Your task to perform on an android device: check google app version Image 0: 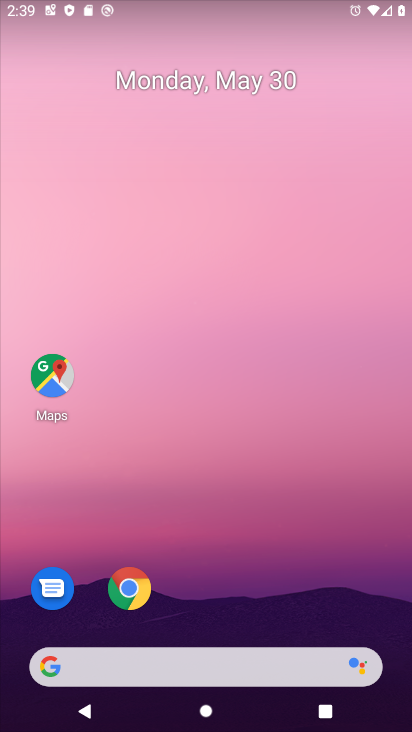
Step 0: drag from (258, 600) to (272, 132)
Your task to perform on an android device: check google app version Image 1: 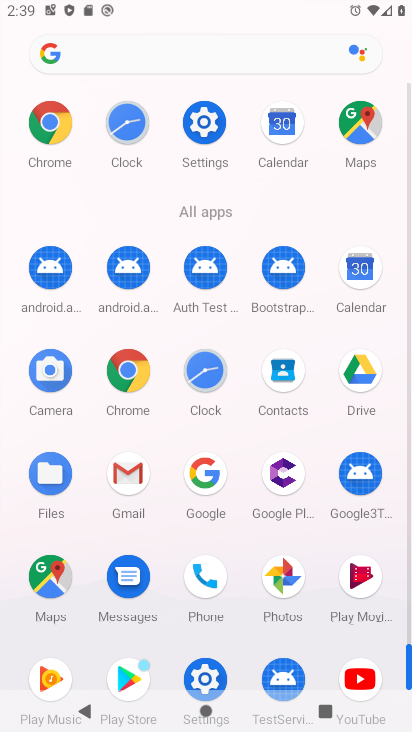
Step 1: click (209, 468)
Your task to perform on an android device: check google app version Image 2: 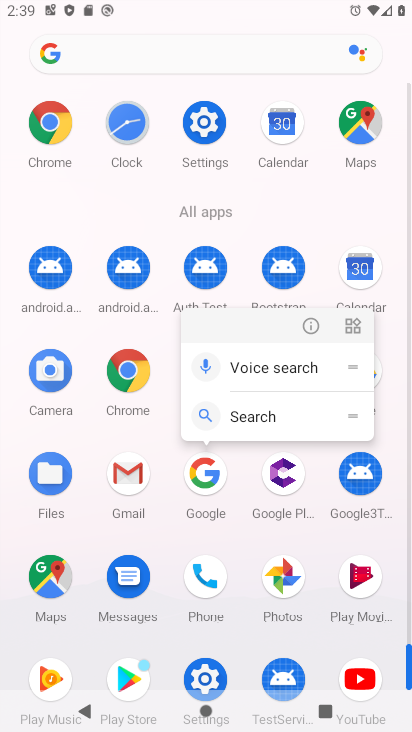
Step 2: click (315, 320)
Your task to perform on an android device: check google app version Image 3: 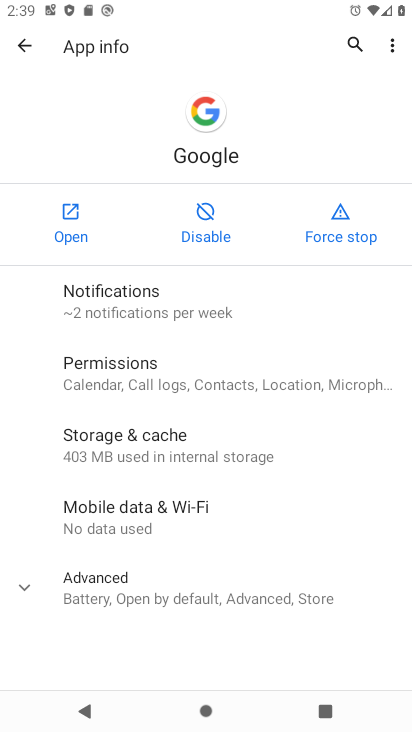
Step 3: click (201, 600)
Your task to perform on an android device: check google app version Image 4: 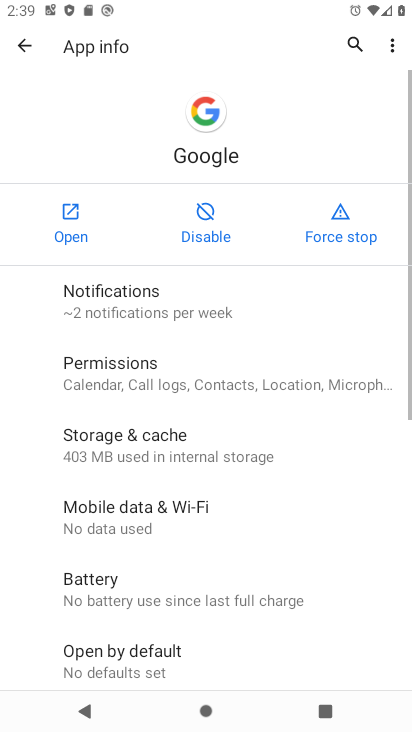
Step 4: task complete